Your task to perform on an android device: Open internet settings Image 0: 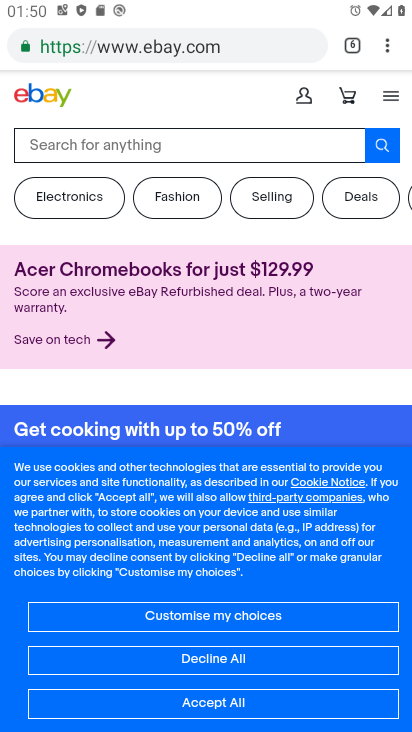
Step 0: press home button
Your task to perform on an android device: Open internet settings Image 1: 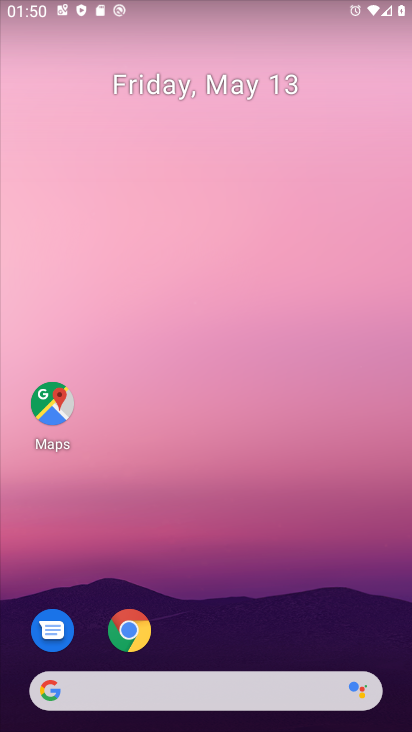
Step 1: drag from (188, 727) to (189, 236)
Your task to perform on an android device: Open internet settings Image 2: 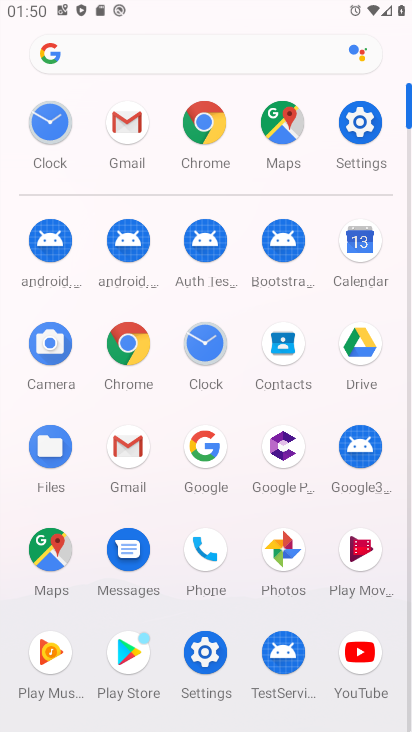
Step 2: click (354, 134)
Your task to perform on an android device: Open internet settings Image 3: 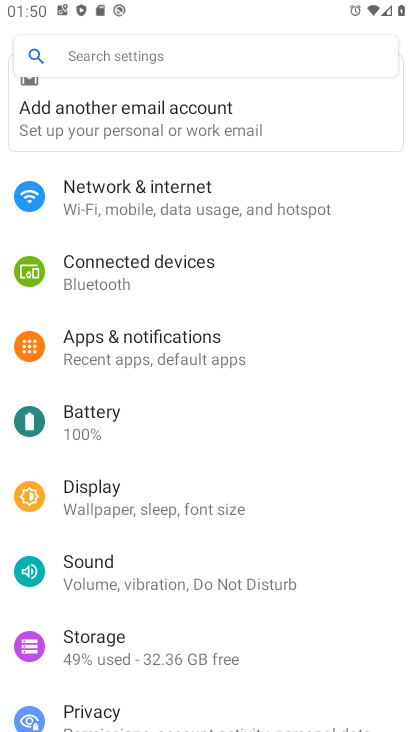
Step 3: click (169, 209)
Your task to perform on an android device: Open internet settings Image 4: 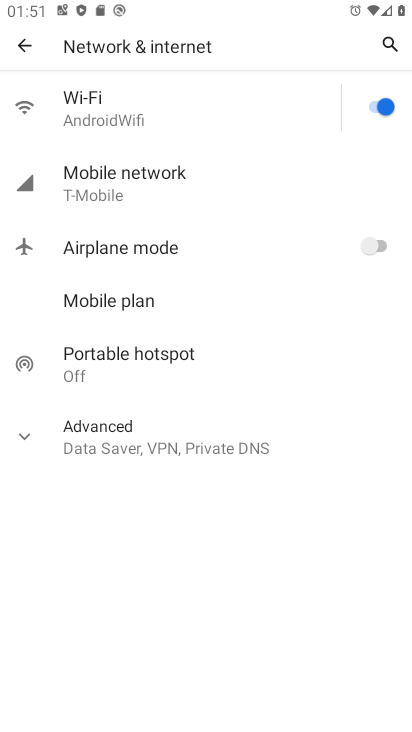
Step 4: task complete